Your task to perform on an android device: uninstall "ColorNote Notepad Notes" Image 0: 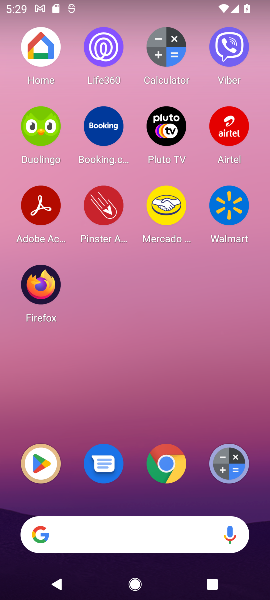
Step 0: press home button
Your task to perform on an android device: uninstall "ColorNote Notepad Notes" Image 1: 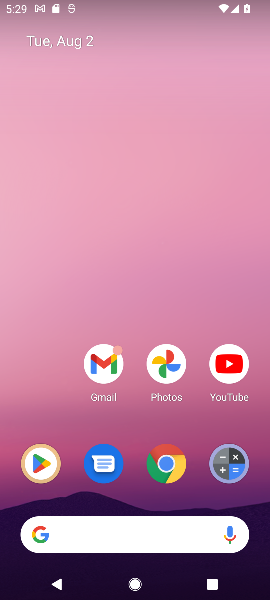
Step 1: click (38, 462)
Your task to perform on an android device: uninstall "ColorNote Notepad Notes" Image 2: 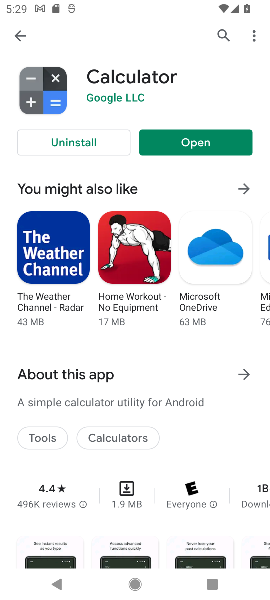
Step 2: click (220, 30)
Your task to perform on an android device: uninstall "ColorNote Notepad Notes" Image 3: 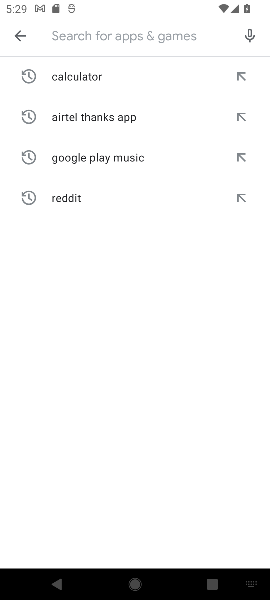
Step 3: type "ColorNote Notepad Notes"
Your task to perform on an android device: uninstall "ColorNote Notepad Notes" Image 4: 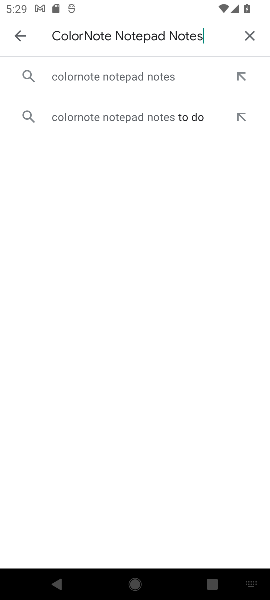
Step 4: click (158, 75)
Your task to perform on an android device: uninstall "ColorNote Notepad Notes" Image 5: 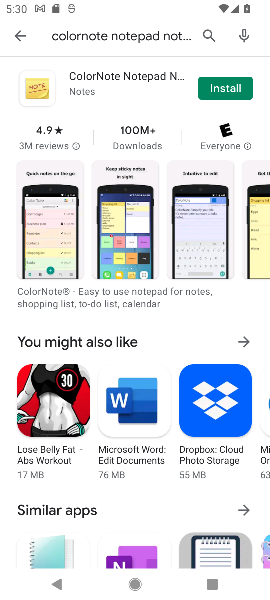
Step 5: task complete